Your task to perform on an android device: Go to Amazon Image 0: 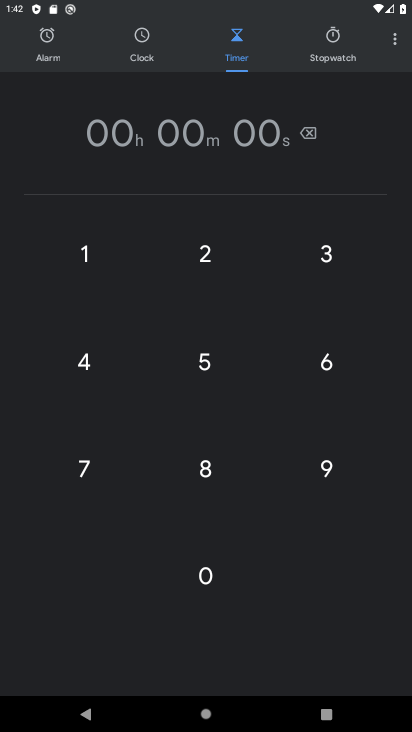
Step 0: press home button
Your task to perform on an android device: Go to Amazon Image 1: 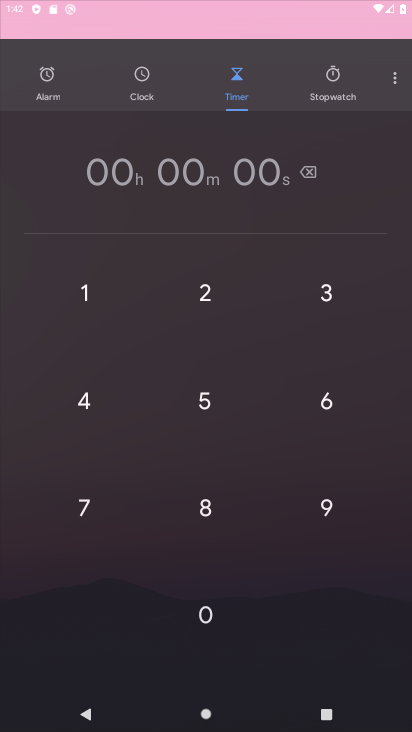
Step 1: drag from (160, 662) to (307, 105)
Your task to perform on an android device: Go to Amazon Image 2: 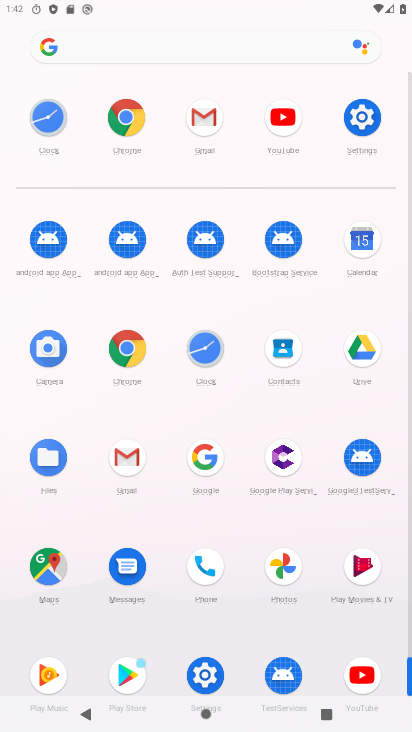
Step 2: click (129, 108)
Your task to perform on an android device: Go to Amazon Image 3: 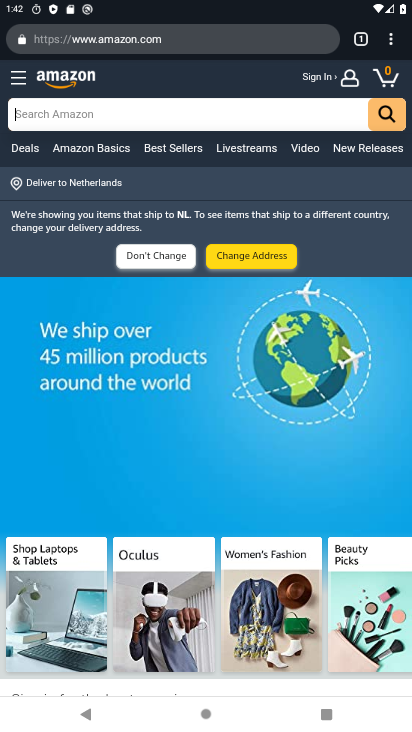
Step 3: task complete